Your task to perform on an android device: set the stopwatch Image 0: 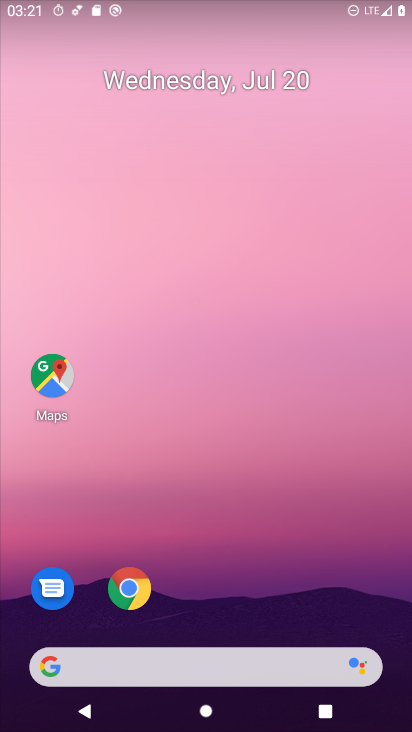
Step 0: drag from (229, 608) to (152, 46)
Your task to perform on an android device: set the stopwatch Image 1: 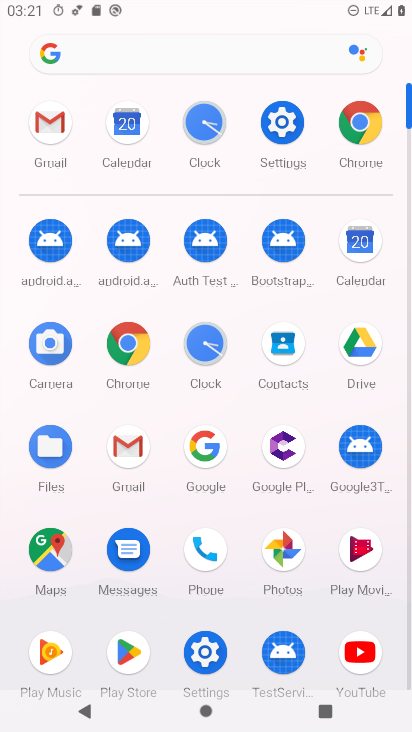
Step 1: click (187, 328)
Your task to perform on an android device: set the stopwatch Image 2: 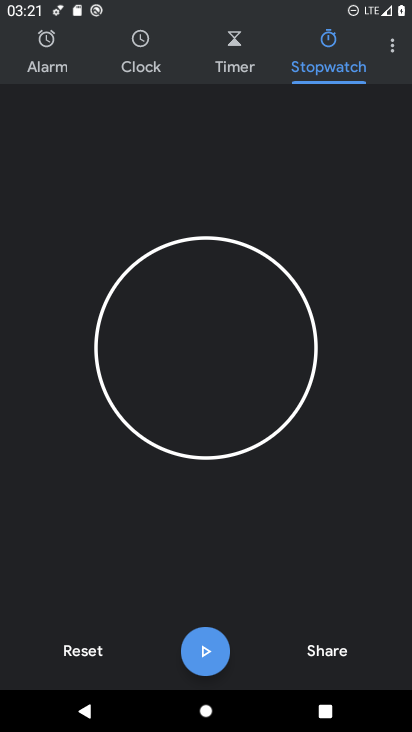
Step 2: click (193, 646)
Your task to perform on an android device: set the stopwatch Image 3: 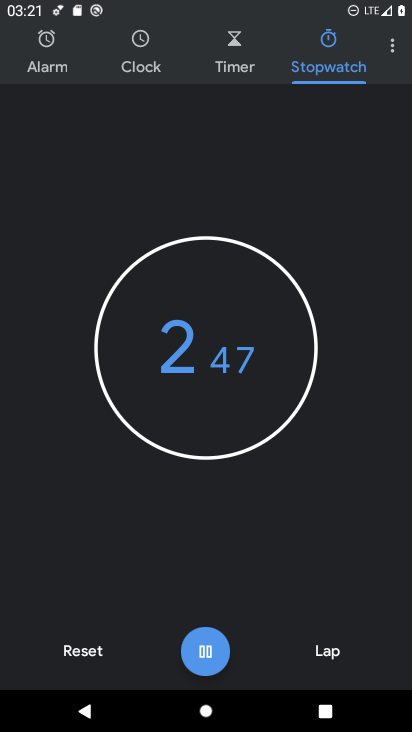
Step 3: click (193, 646)
Your task to perform on an android device: set the stopwatch Image 4: 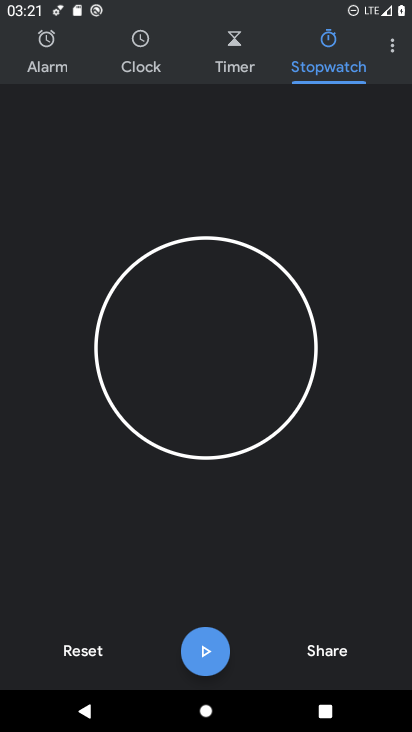
Step 4: task complete